Your task to perform on an android device: Go to Google Image 0: 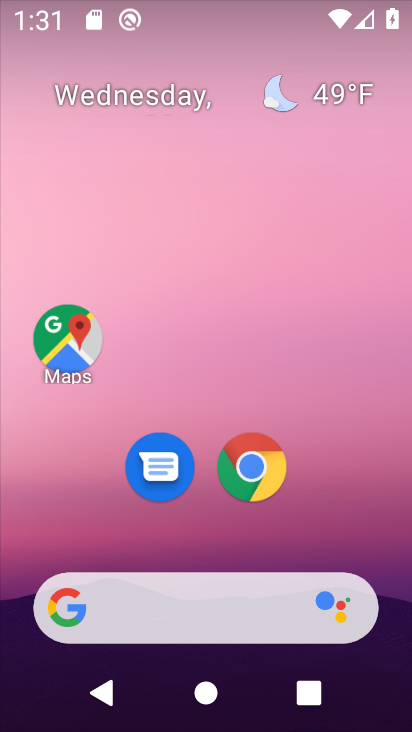
Step 0: click (249, 467)
Your task to perform on an android device: Go to Google Image 1: 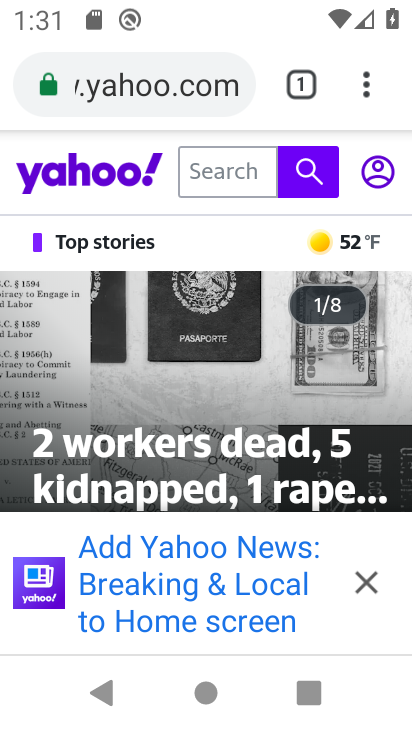
Step 1: click (363, 78)
Your task to perform on an android device: Go to Google Image 2: 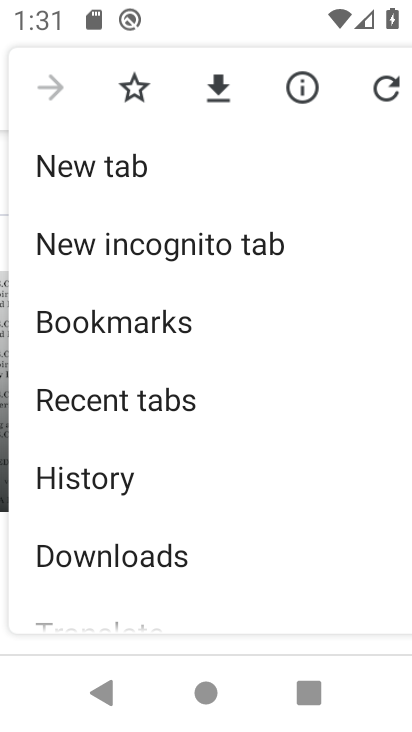
Step 2: drag from (224, 535) to (282, 274)
Your task to perform on an android device: Go to Google Image 3: 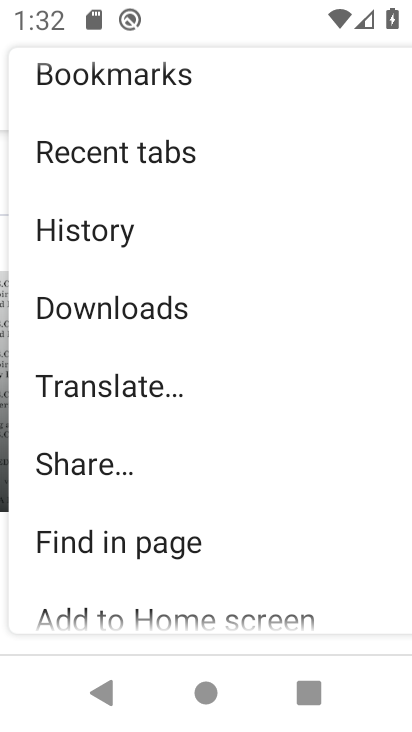
Step 3: drag from (272, 546) to (239, 241)
Your task to perform on an android device: Go to Google Image 4: 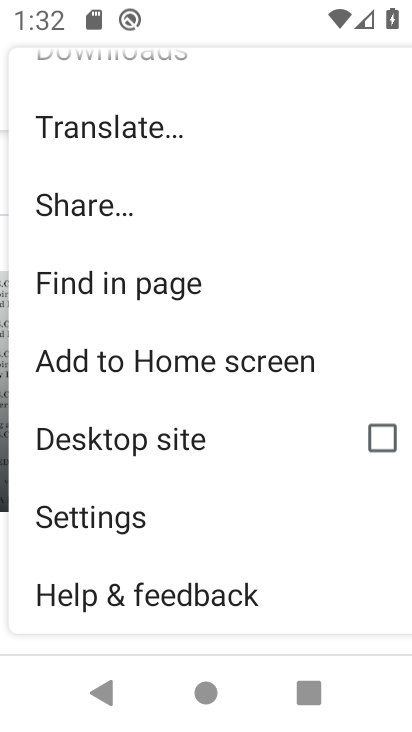
Step 4: click (75, 513)
Your task to perform on an android device: Go to Google Image 5: 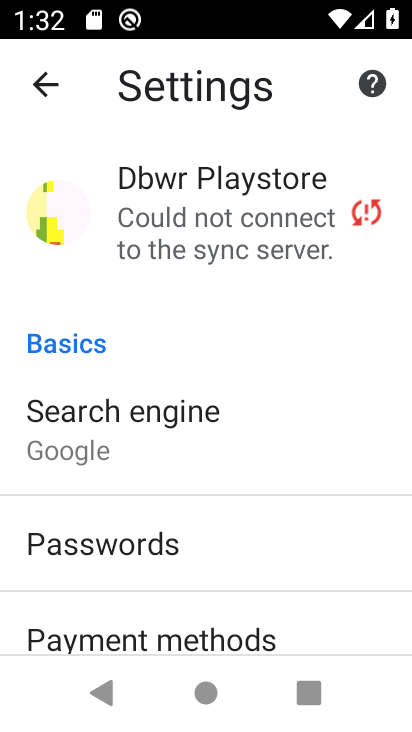
Step 5: task complete